Your task to perform on an android device: open a bookmark in the chrome app Image 0: 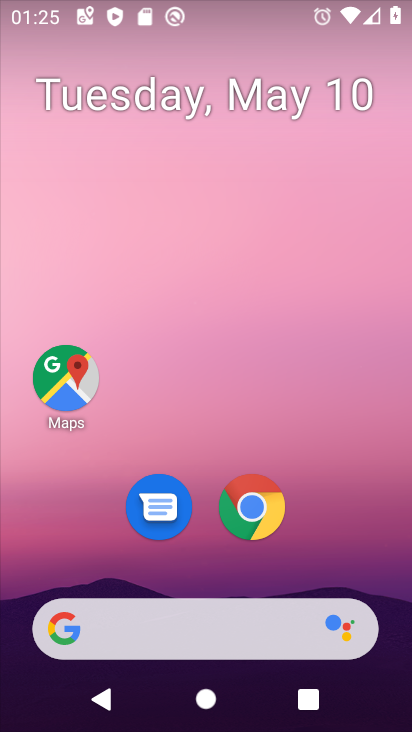
Step 0: click (256, 476)
Your task to perform on an android device: open a bookmark in the chrome app Image 1: 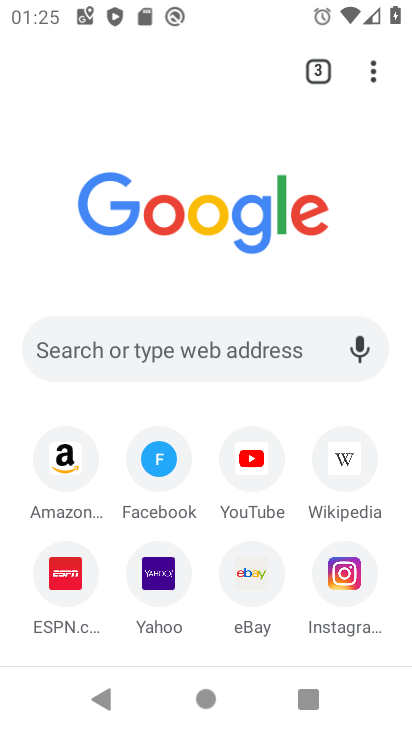
Step 1: click (367, 61)
Your task to perform on an android device: open a bookmark in the chrome app Image 2: 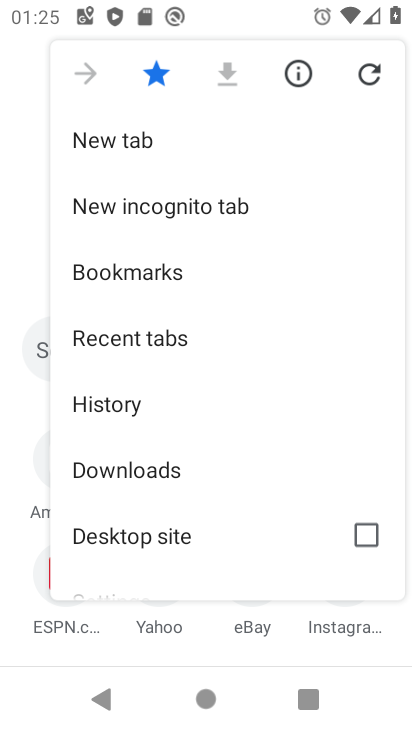
Step 2: click (142, 272)
Your task to perform on an android device: open a bookmark in the chrome app Image 3: 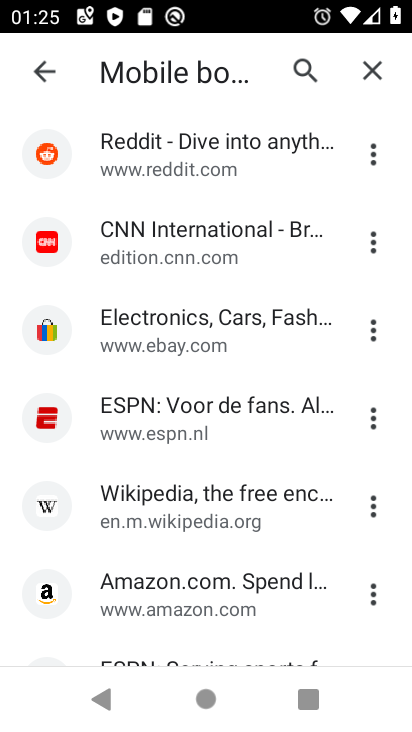
Step 3: drag from (227, 624) to (242, 254)
Your task to perform on an android device: open a bookmark in the chrome app Image 4: 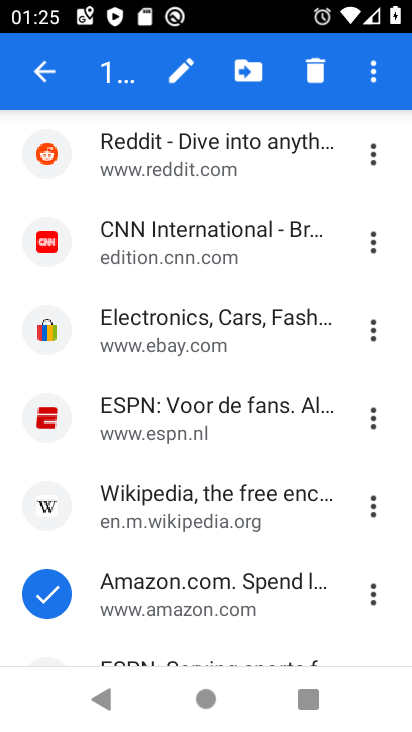
Step 4: drag from (266, 632) to (288, 246)
Your task to perform on an android device: open a bookmark in the chrome app Image 5: 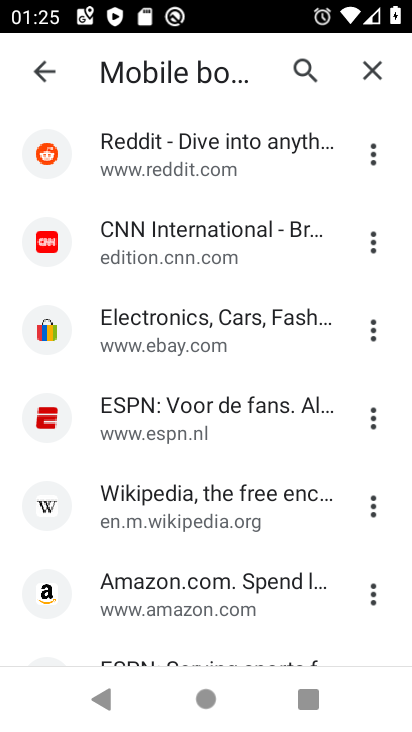
Step 5: drag from (208, 616) to (224, 246)
Your task to perform on an android device: open a bookmark in the chrome app Image 6: 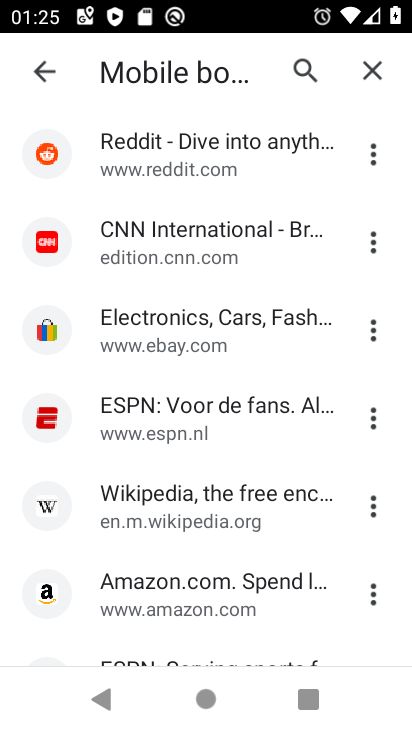
Step 6: drag from (234, 649) to (242, 307)
Your task to perform on an android device: open a bookmark in the chrome app Image 7: 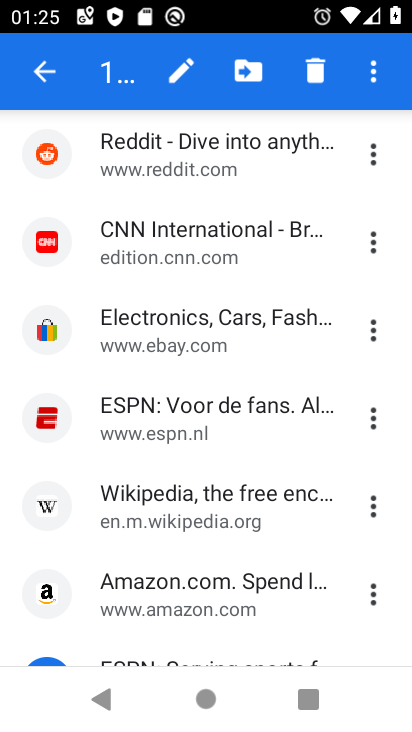
Step 7: click (52, 662)
Your task to perform on an android device: open a bookmark in the chrome app Image 8: 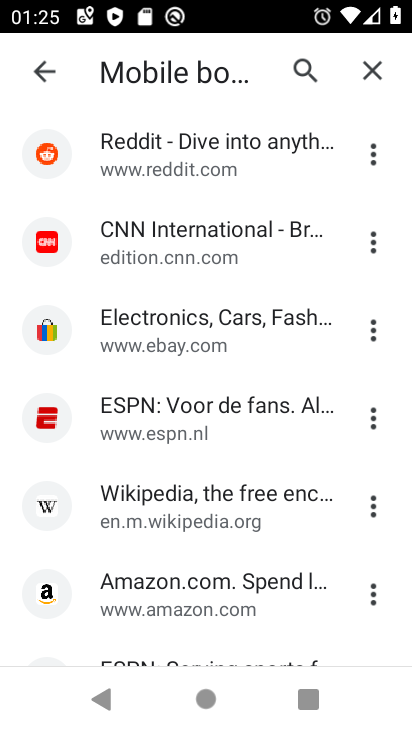
Step 8: task complete